Your task to perform on an android device: Open settings on Google Maps Image 0: 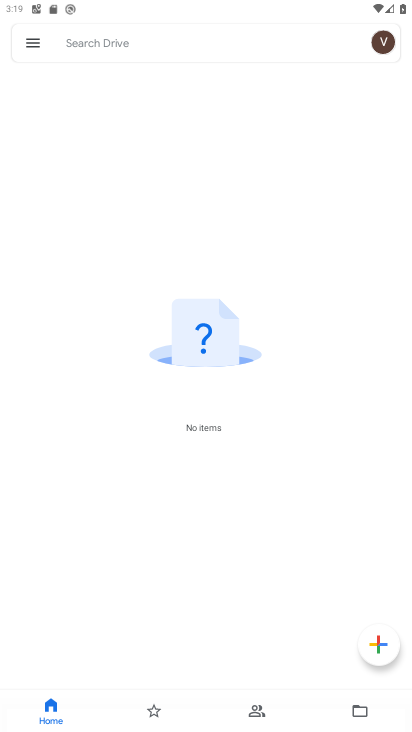
Step 0: press home button
Your task to perform on an android device: Open settings on Google Maps Image 1: 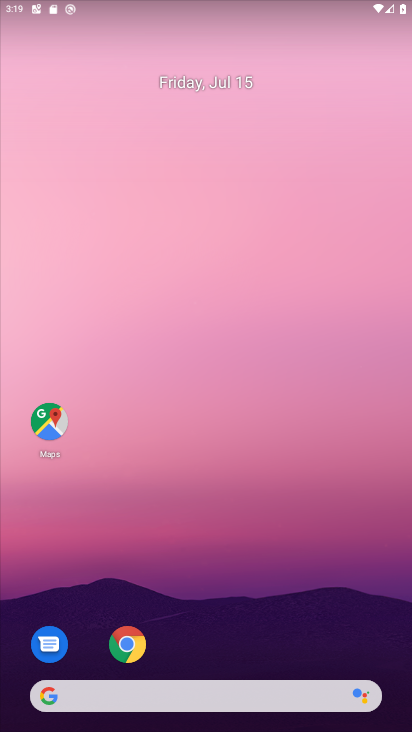
Step 1: click (45, 428)
Your task to perform on an android device: Open settings on Google Maps Image 2: 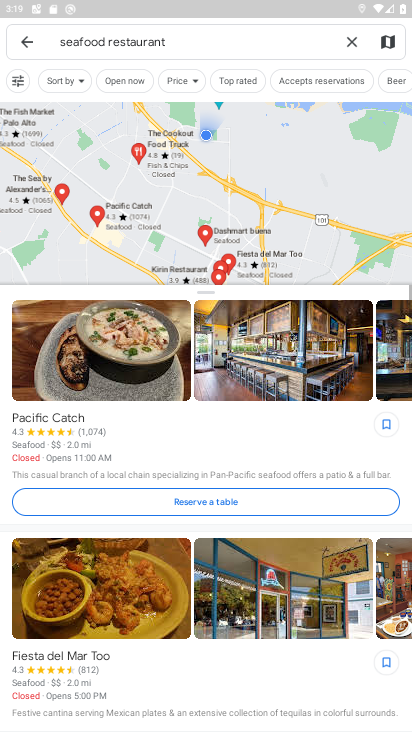
Step 2: click (41, 43)
Your task to perform on an android device: Open settings on Google Maps Image 3: 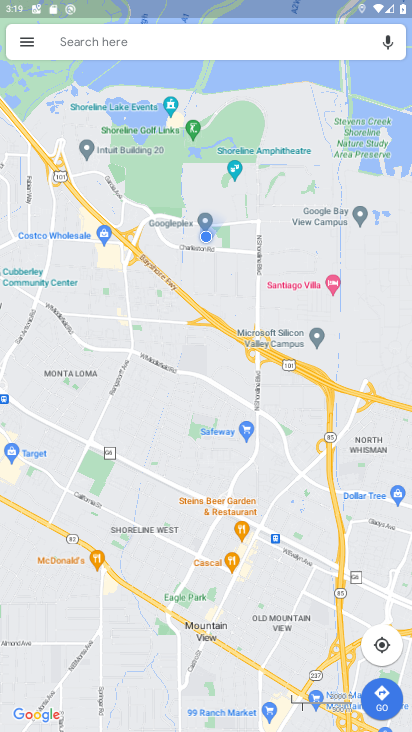
Step 3: click (36, 46)
Your task to perform on an android device: Open settings on Google Maps Image 4: 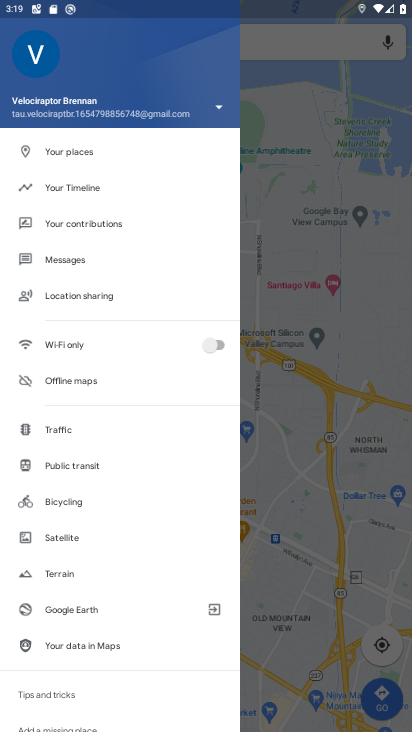
Step 4: drag from (80, 697) to (96, 215)
Your task to perform on an android device: Open settings on Google Maps Image 5: 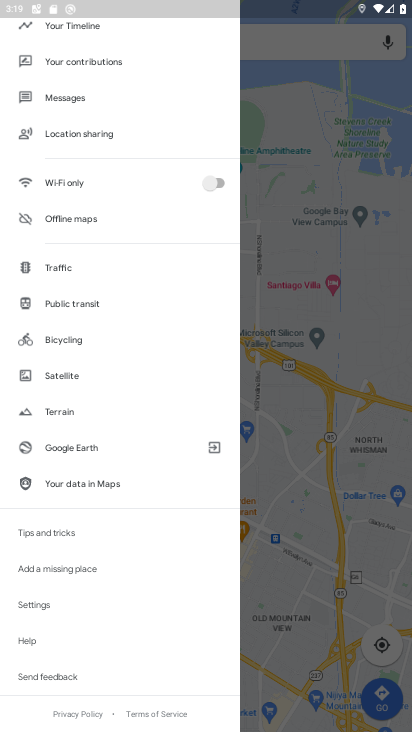
Step 5: click (93, 606)
Your task to perform on an android device: Open settings on Google Maps Image 6: 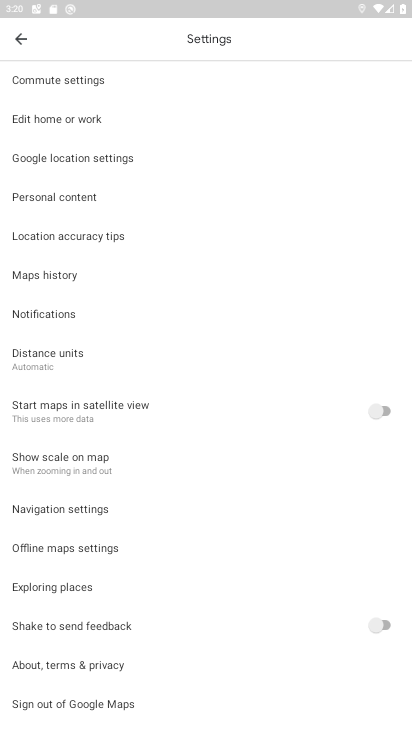
Step 6: task complete